Your task to perform on an android device: change timer sound Image 0: 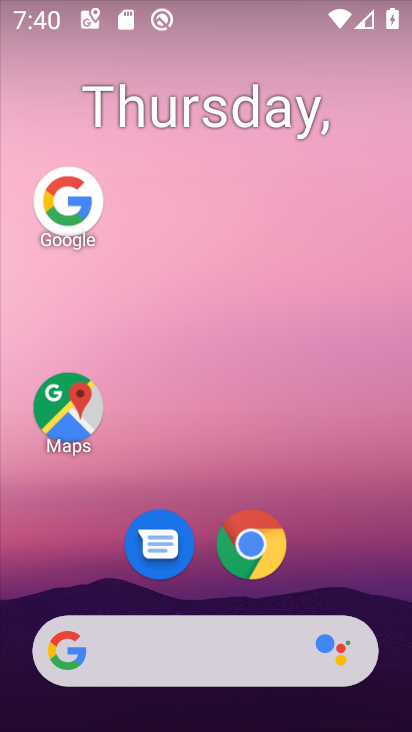
Step 0: drag from (281, 694) to (275, 288)
Your task to perform on an android device: change timer sound Image 1: 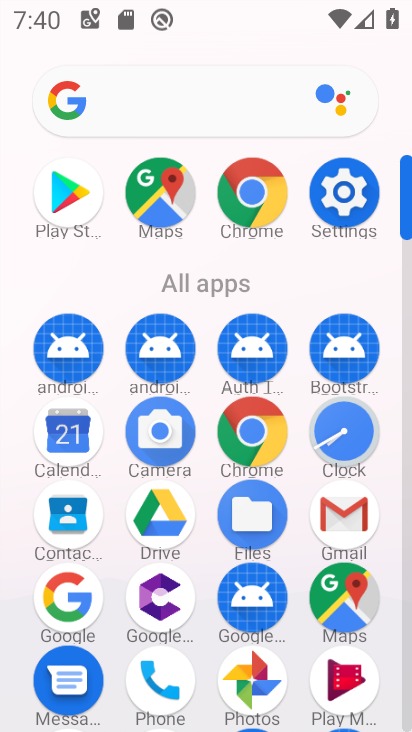
Step 1: click (339, 422)
Your task to perform on an android device: change timer sound Image 2: 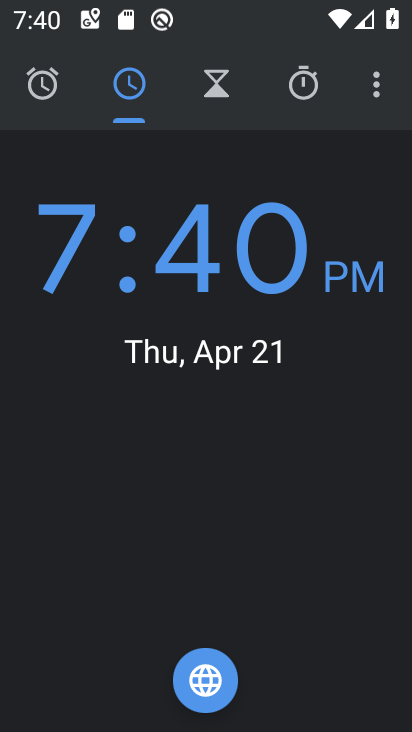
Step 2: click (380, 76)
Your task to perform on an android device: change timer sound Image 3: 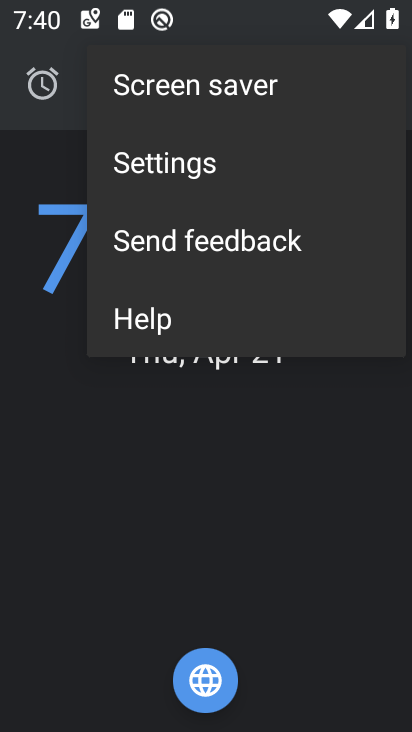
Step 3: click (218, 156)
Your task to perform on an android device: change timer sound Image 4: 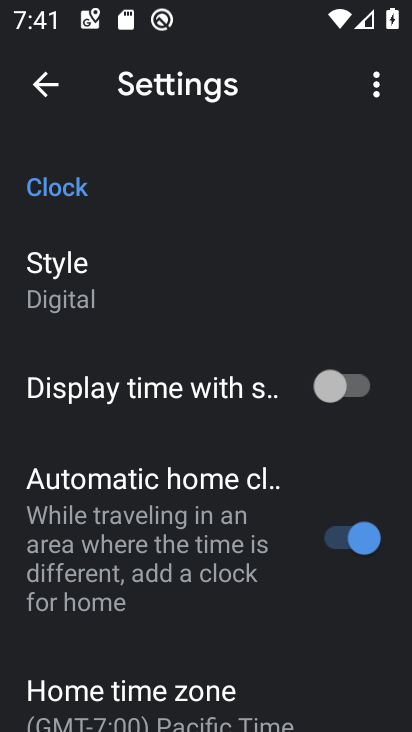
Step 4: drag from (131, 527) to (185, 138)
Your task to perform on an android device: change timer sound Image 5: 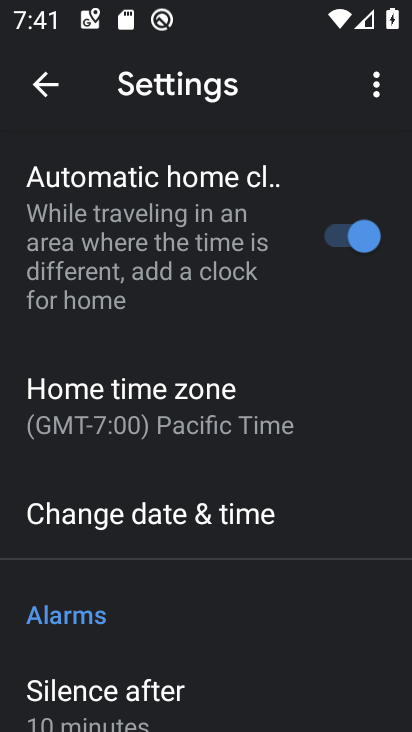
Step 5: drag from (164, 530) to (223, 165)
Your task to perform on an android device: change timer sound Image 6: 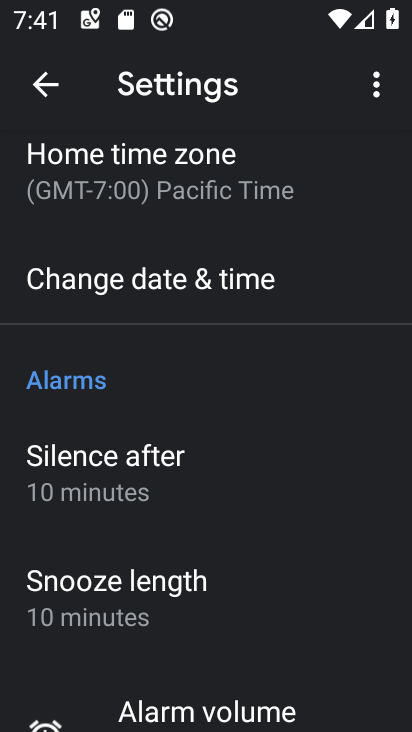
Step 6: drag from (177, 576) to (208, 231)
Your task to perform on an android device: change timer sound Image 7: 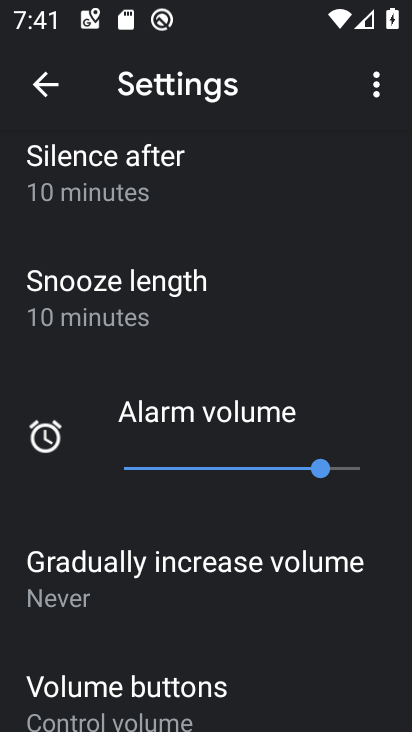
Step 7: drag from (157, 652) to (219, 16)
Your task to perform on an android device: change timer sound Image 8: 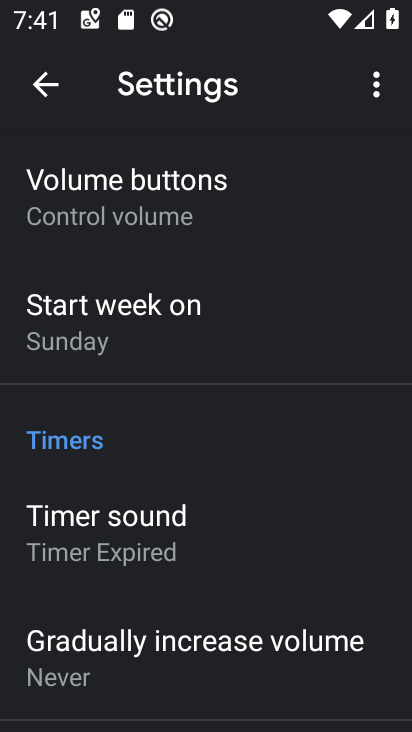
Step 8: click (127, 557)
Your task to perform on an android device: change timer sound Image 9: 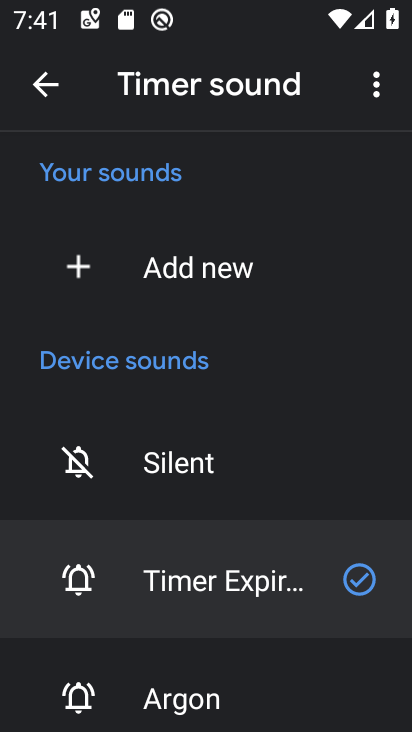
Step 9: drag from (224, 646) to (213, 479)
Your task to perform on an android device: change timer sound Image 10: 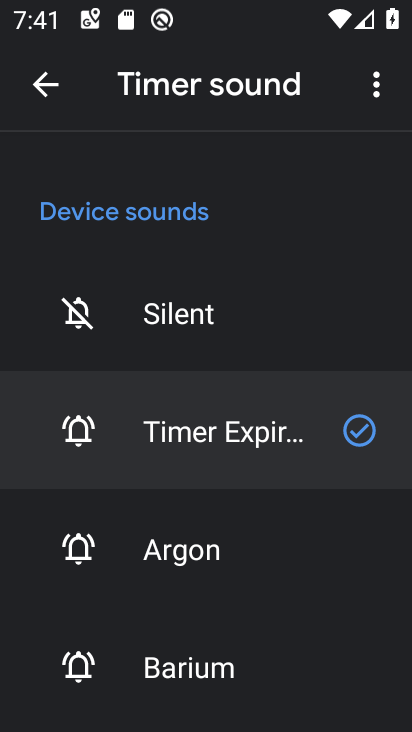
Step 10: click (179, 545)
Your task to perform on an android device: change timer sound Image 11: 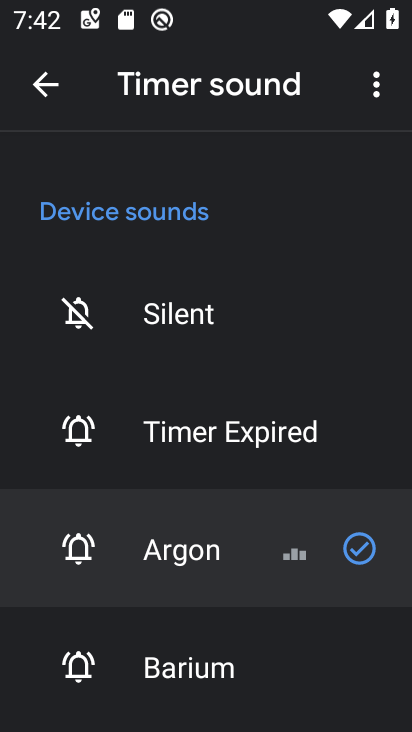
Step 11: task complete